Your task to perform on an android device: toggle priority inbox in the gmail app Image 0: 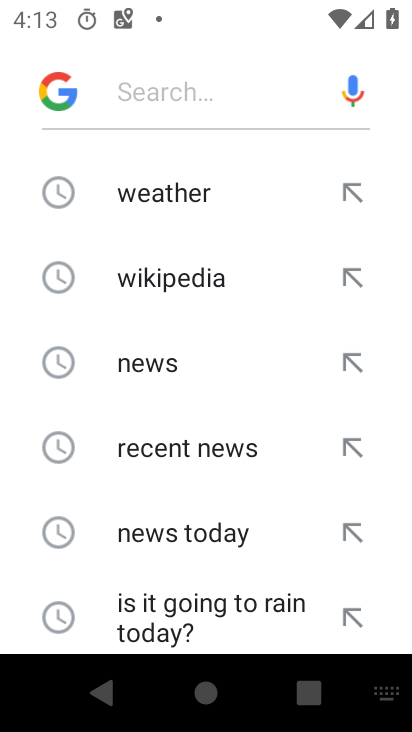
Step 0: press home button
Your task to perform on an android device: toggle priority inbox in the gmail app Image 1: 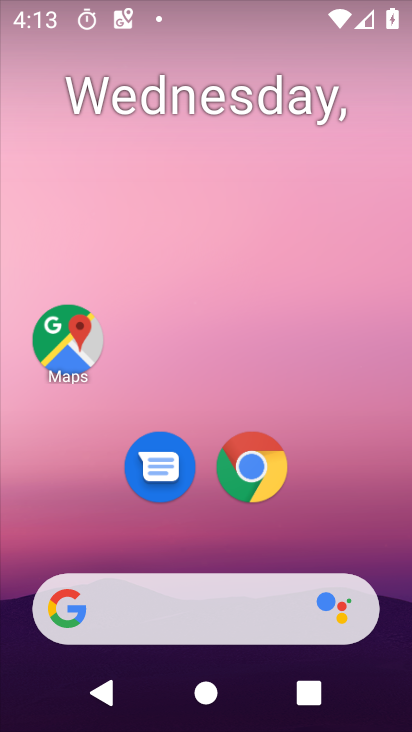
Step 1: drag from (232, 534) to (163, 49)
Your task to perform on an android device: toggle priority inbox in the gmail app Image 2: 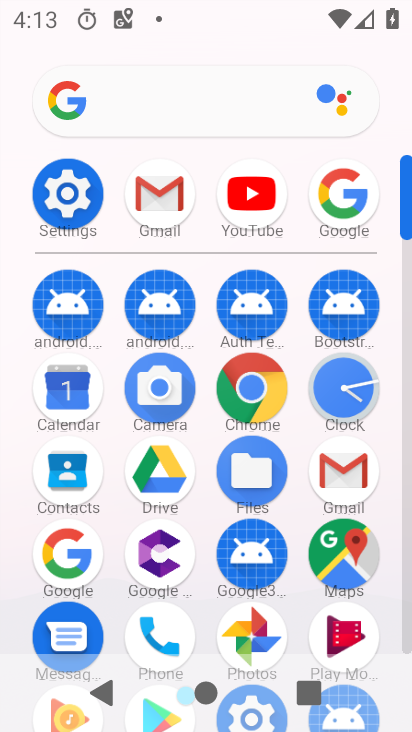
Step 2: click (80, 193)
Your task to perform on an android device: toggle priority inbox in the gmail app Image 3: 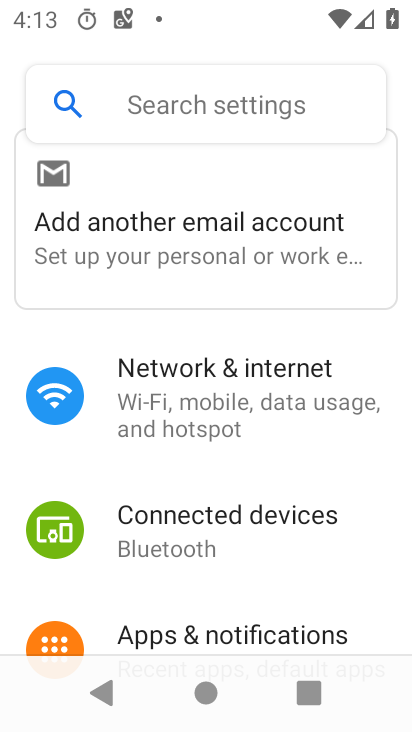
Step 3: press back button
Your task to perform on an android device: toggle priority inbox in the gmail app Image 4: 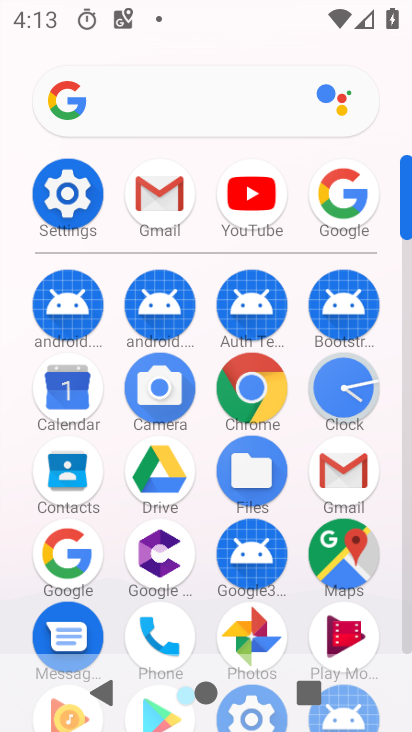
Step 4: click (155, 197)
Your task to perform on an android device: toggle priority inbox in the gmail app Image 5: 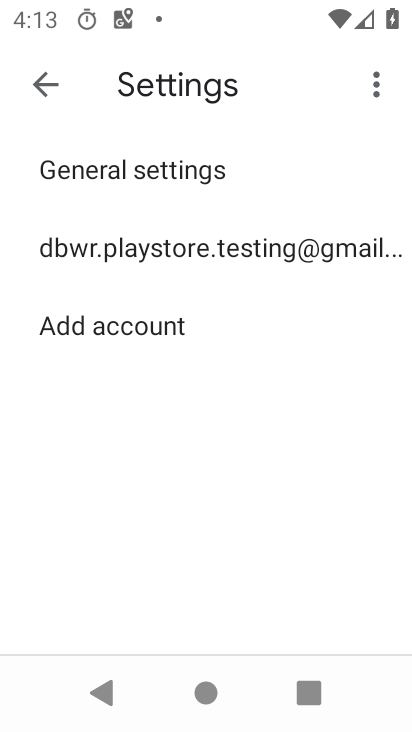
Step 5: click (170, 242)
Your task to perform on an android device: toggle priority inbox in the gmail app Image 6: 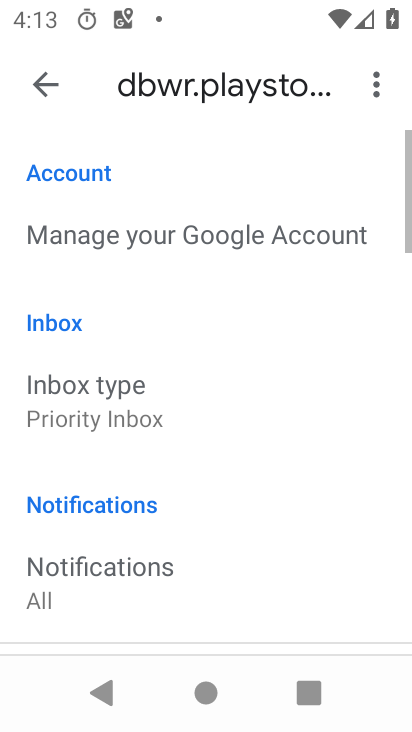
Step 6: click (111, 394)
Your task to perform on an android device: toggle priority inbox in the gmail app Image 7: 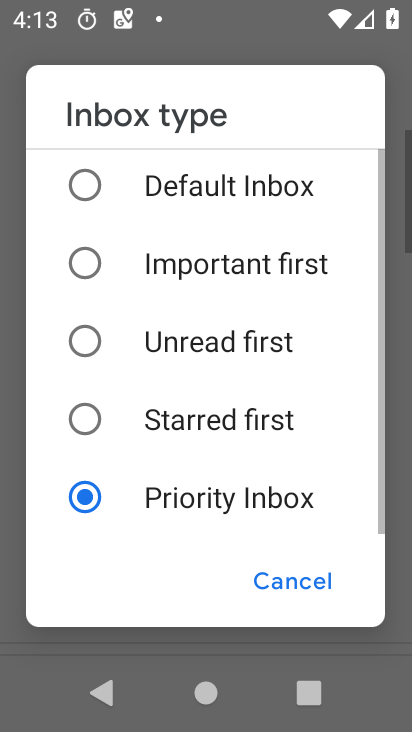
Step 7: click (241, 192)
Your task to perform on an android device: toggle priority inbox in the gmail app Image 8: 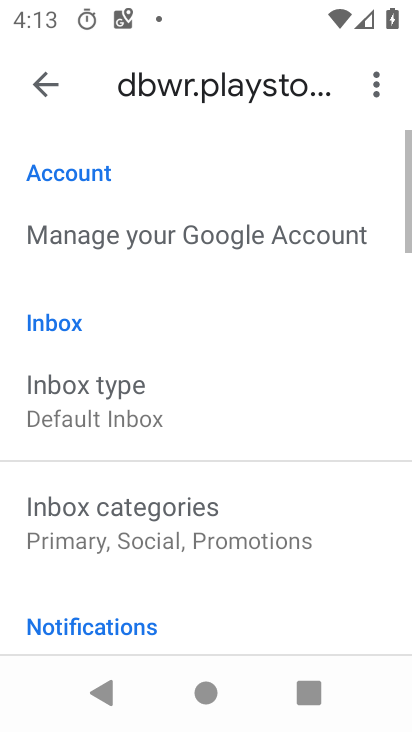
Step 8: task complete